Your task to perform on an android device: Open the web browser Image 0: 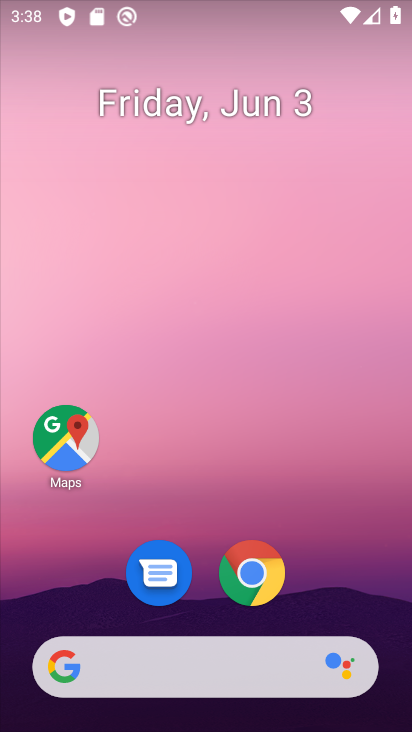
Step 0: click (243, 567)
Your task to perform on an android device: Open the web browser Image 1: 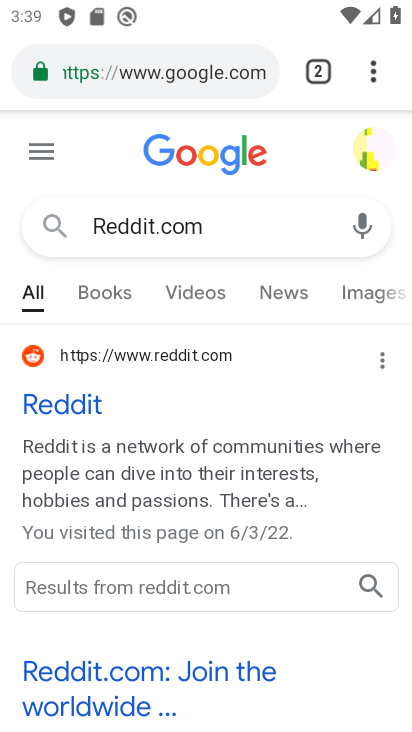
Step 1: task complete